Your task to perform on an android device: Open Chrome and go to the settings page Image 0: 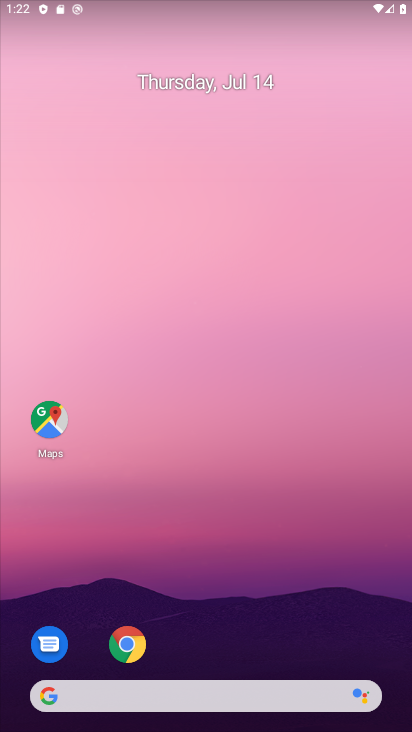
Step 0: drag from (213, 632) to (279, 173)
Your task to perform on an android device: Open Chrome and go to the settings page Image 1: 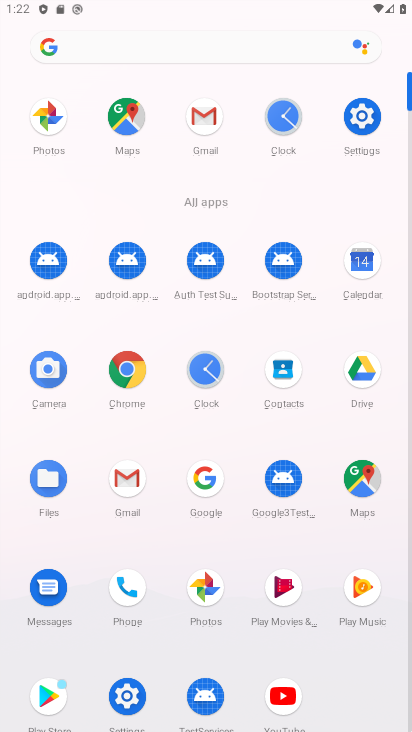
Step 1: click (136, 389)
Your task to perform on an android device: Open Chrome and go to the settings page Image 2: 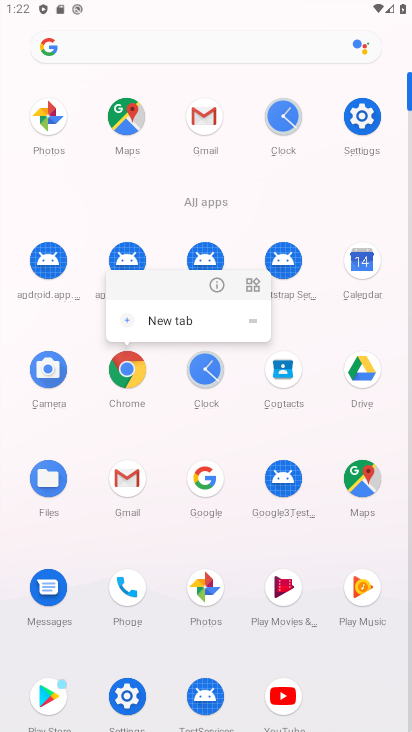
Step 2: click (129, 381)
Your task to perform on an android device: Open Chrome and go to the settings page Image 3: 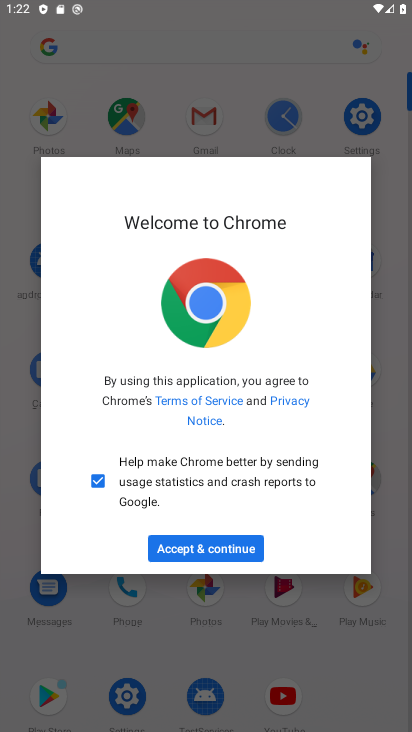
Step 3: click (246, 551)
Your task to perform on an android device: Open Chrome and go to the settings page Image 4: 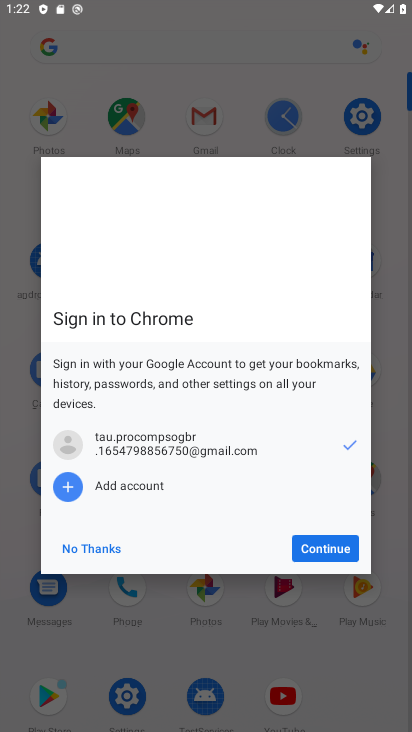
Step 4: click (321, 545)
Your task to perform on an android device: Open Chrome and go to the settings page Image 5: 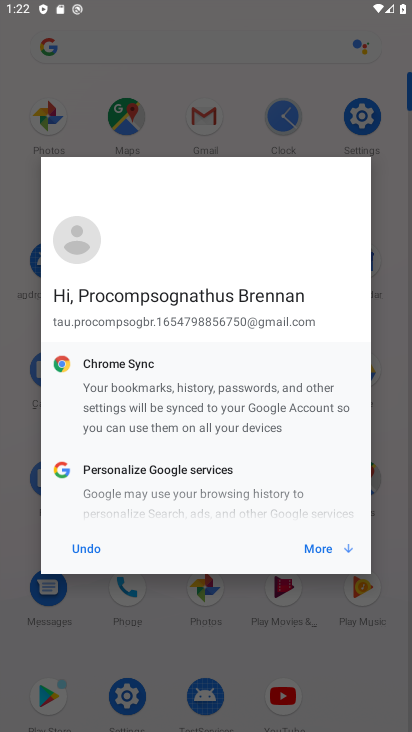
Step 5: click (321, 545)
Your task to perform on an android device: Open Chrome and go to the settings page Image 6: 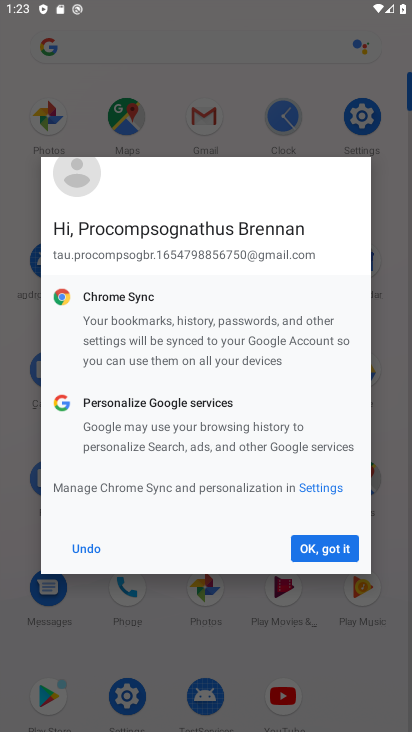
Step 6: click (321, 545)
Your task to perform on an android device: Open Chrome and go to the settings page Image 7: 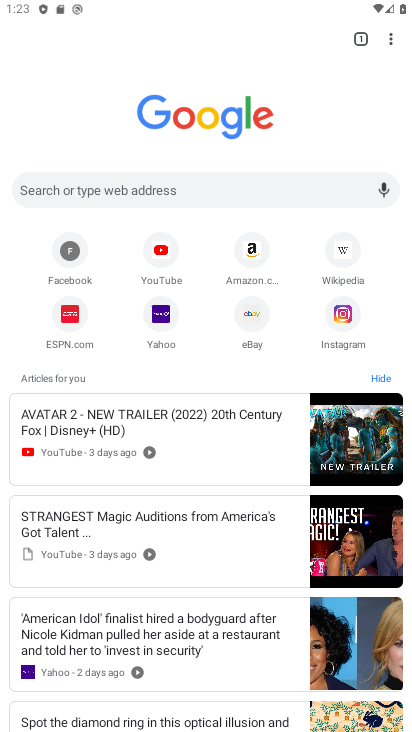
Step 7: task complete